Your task to perform on an android device: Go to calendar. Show me events next week Image 0: 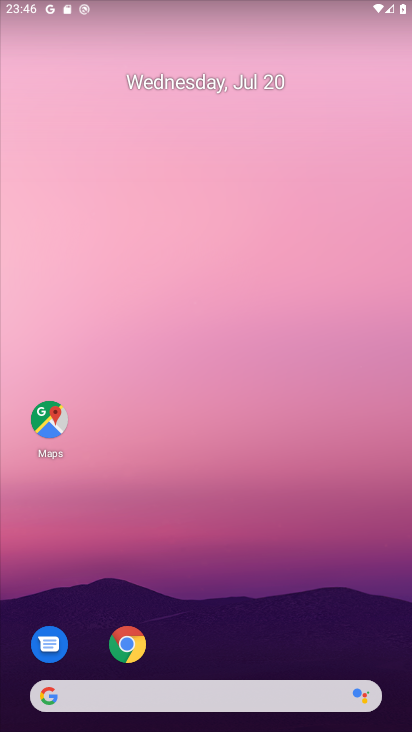
Step 0: drag from (176, 716) to (223, 200)
Your task to perform on an android device: Go to calendar. Show me events next week Image 1: 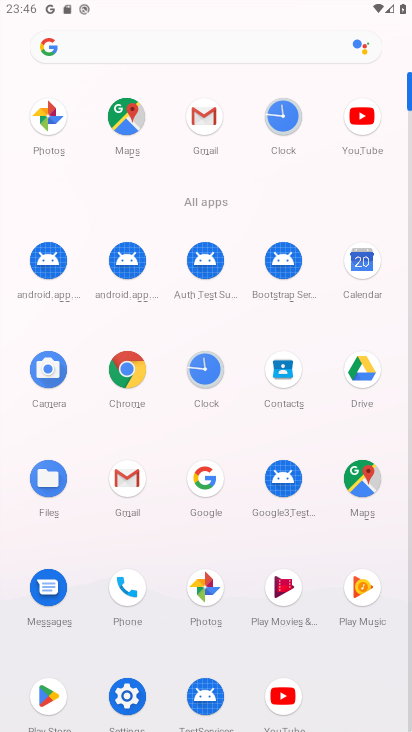
Step 1: click (360, 264)
Your task to perform on an android device: Go to calendar. Show me events next week Image 2: 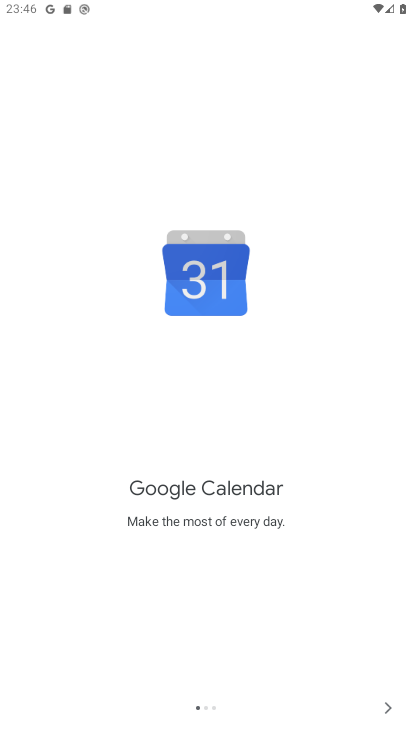
Step 2: click (388, 701)
Your task to perform on an android device: Go to calendar. Show me events next week Image 3: 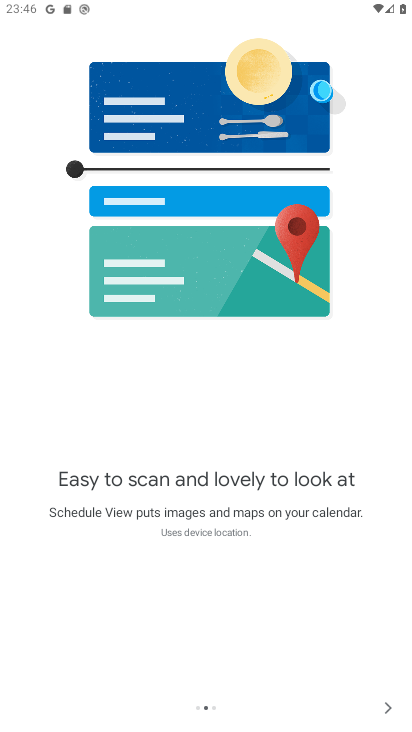
Step 3: click (388, 701)
Your task to perform on an android device: Go to calendar. Show me events next week Image 4: 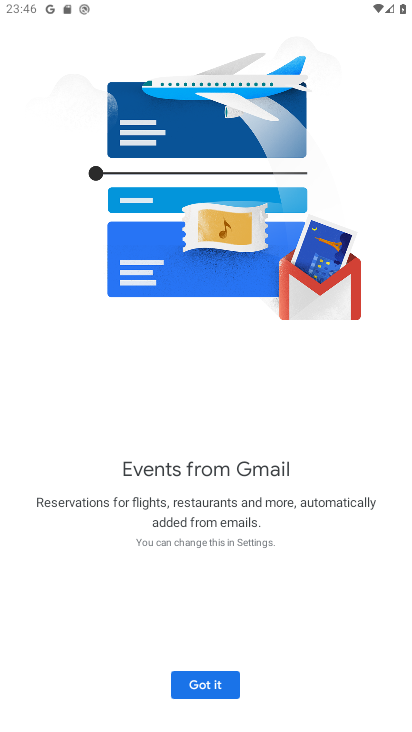
Step 4: click (207, 683)
Your task to perform on an android device: Go to calendar. Show me events next week Image 5: 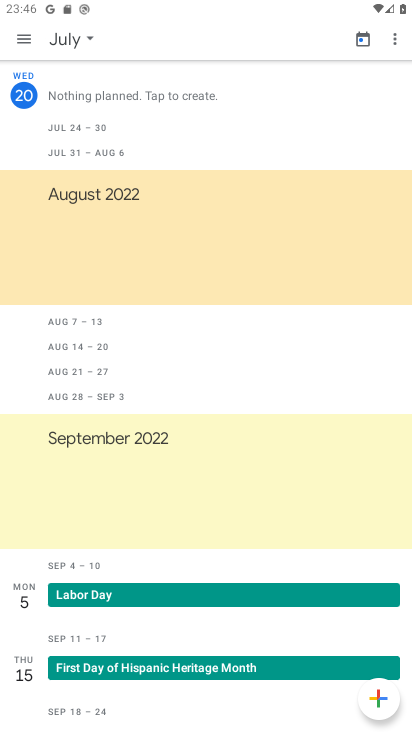
Step 5: click (60, 37)
Your task to perform on an android device: Go to calendar. Show me events next week Image 6: 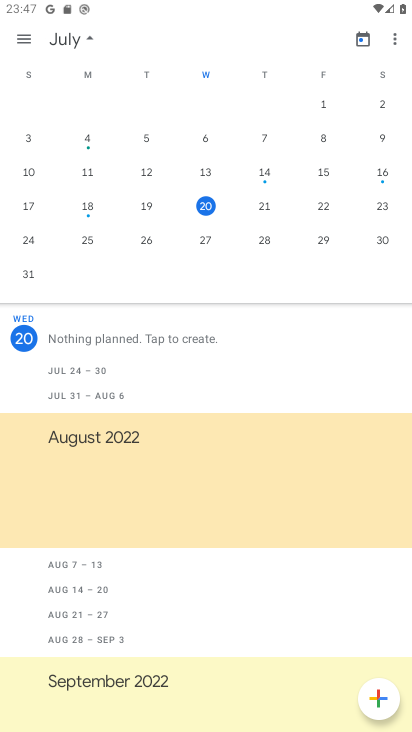
Step 6: click (22, 242)
Your task to perform on an android device: Go to calendar. Show me events next week Image 7: 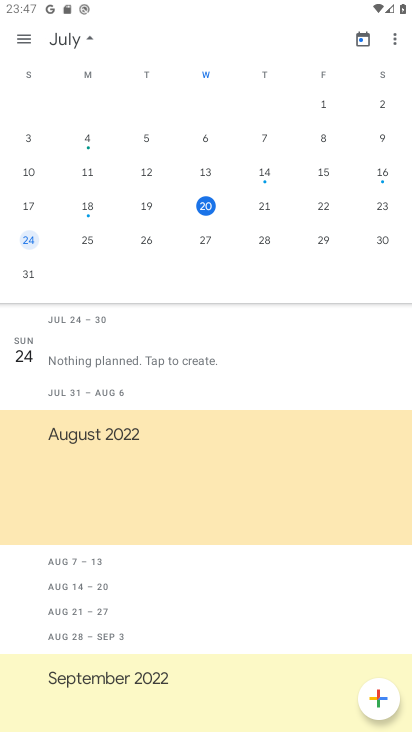
Step 7: task complete